Your task to perform on an android device: What is the news today? Image 0: 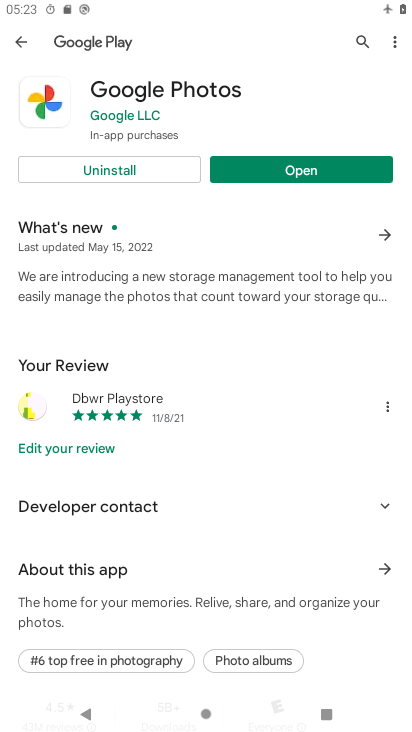
Step 0: press home button
Your task to perform on an android device: What is the news today? Image 1: 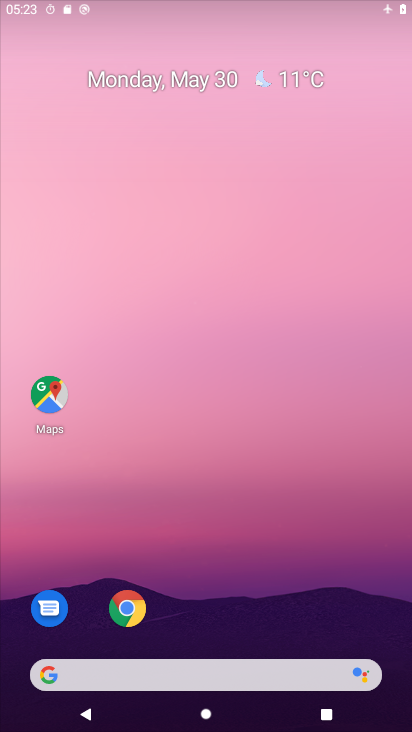
Step 1: drag from (285, 567) to (176, 77)
Your task to perform on an android device: What is the news today? Image 2: 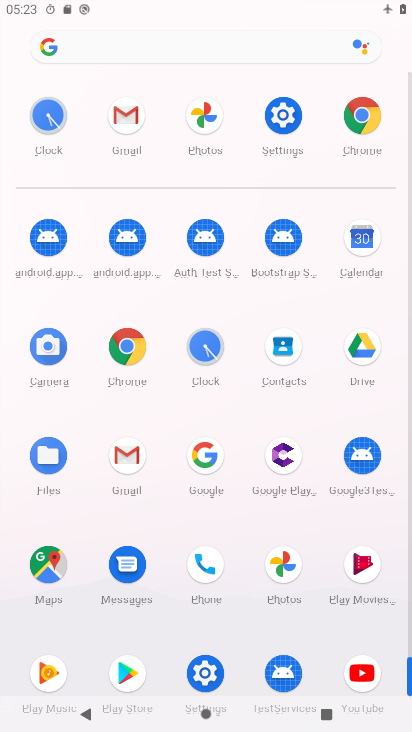
Step 2: click (213, 445)
Your task to perform on an android device: What is the news today? Image 3: 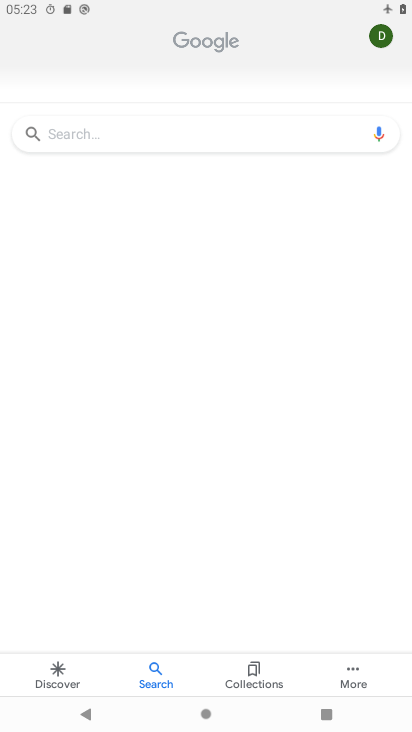
Step 3: click (92, 133)
Your task to perform on an android device: What is the news today? Image 4: 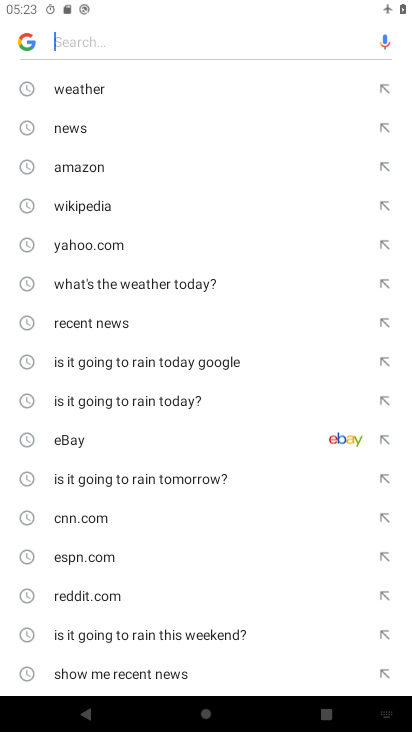
Step 4: click (80, 119)
Your task to perform on an android device: What is the news today? Image 5: 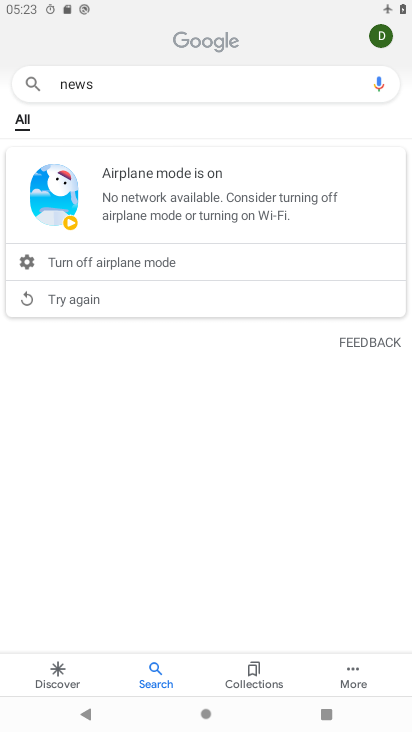
Step 5: task complete